Your task to perform on an android device: Open Wikipedia Image 0: 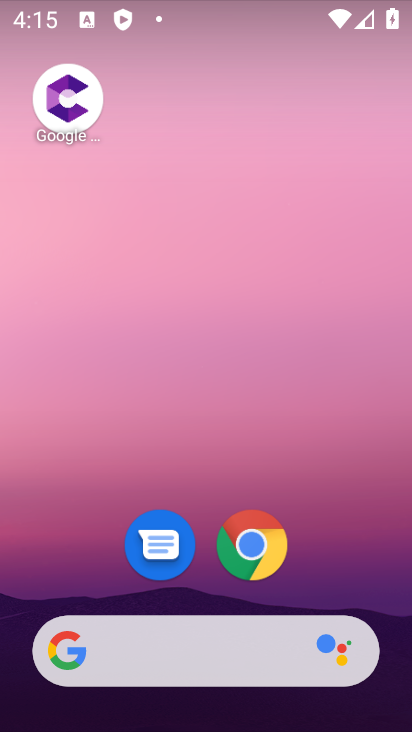
Step 0: click (272, 553)
Your task to perform on an android device: Open Wikipedia Image 1: 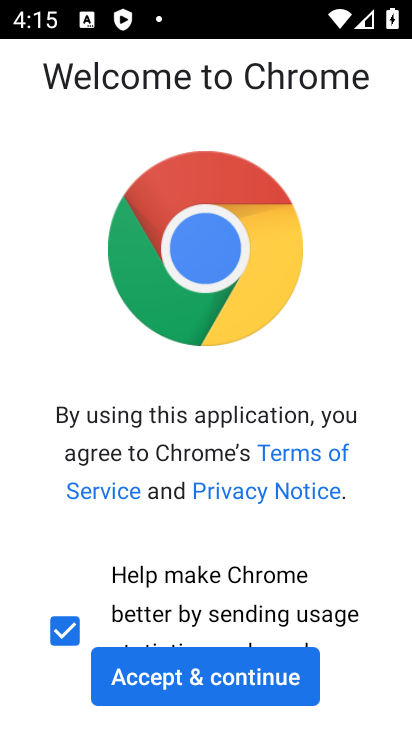
Step 1: click (271, 677)
Your task to perform on an android device: Open Wikipedia Image 2: 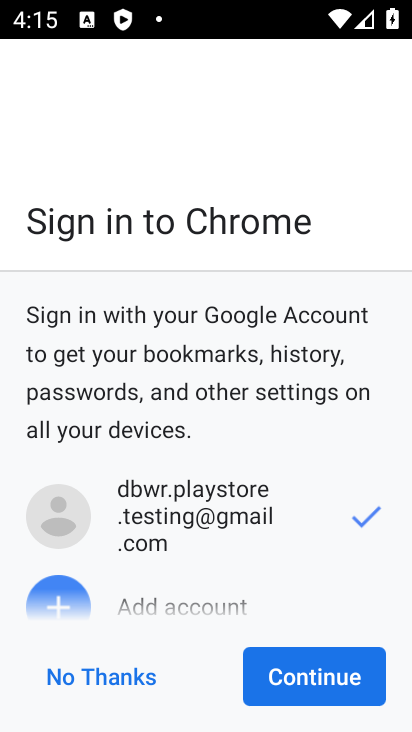
Step 2: click (357, 682)
Your task to perform on an android device: Open Wikipedia Image 3: 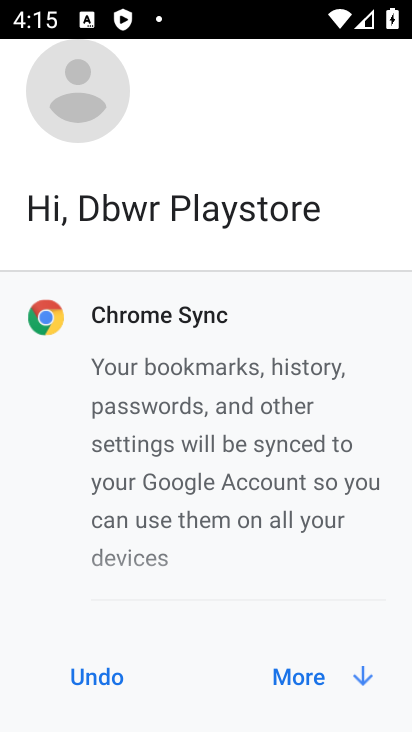
Step 3: click (357, 682)
Your task to perform on an android device: Open Wikipedia Image 4: 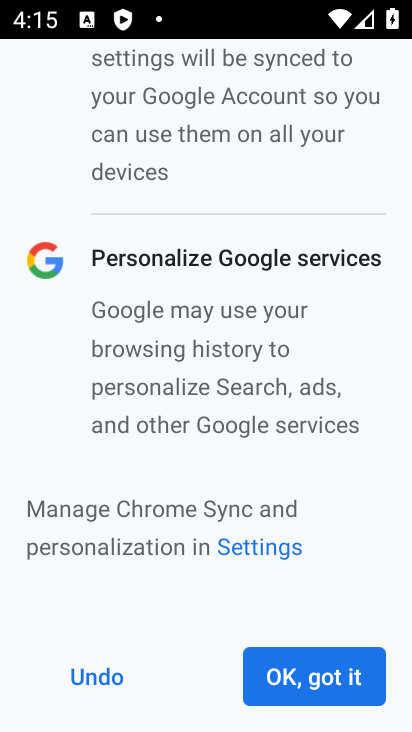
Step 4: click (357, 682)
Your task to perform on an android device: Open Wikipedia Image 5: 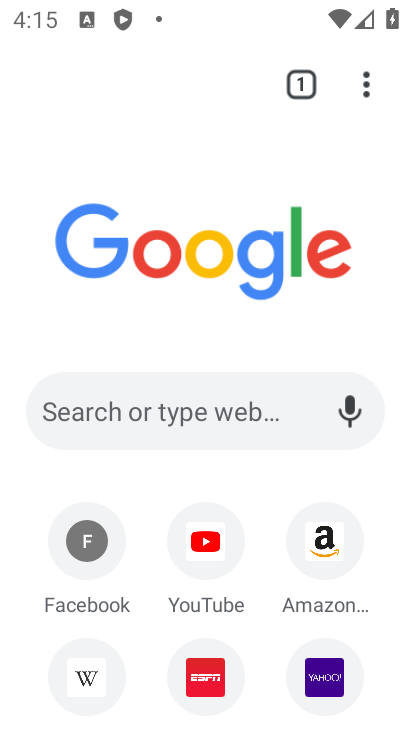
Step 5: click (96, 664)
Your task to perform on an android device: Open Wikipedia Image 6: 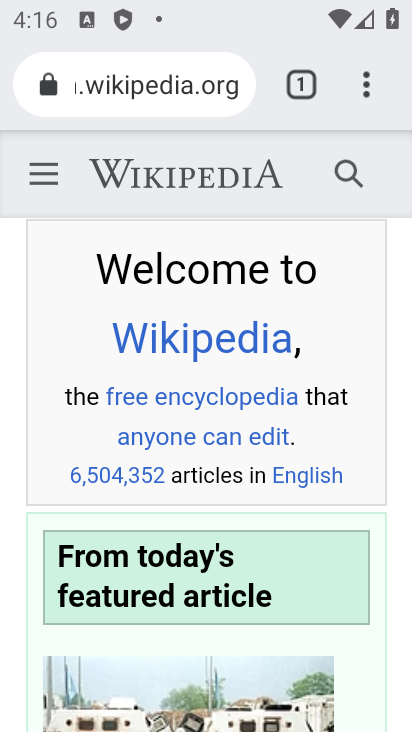
Step 6: task complete